Your task to perform on an android device: Open Yahoo.com Image 0: 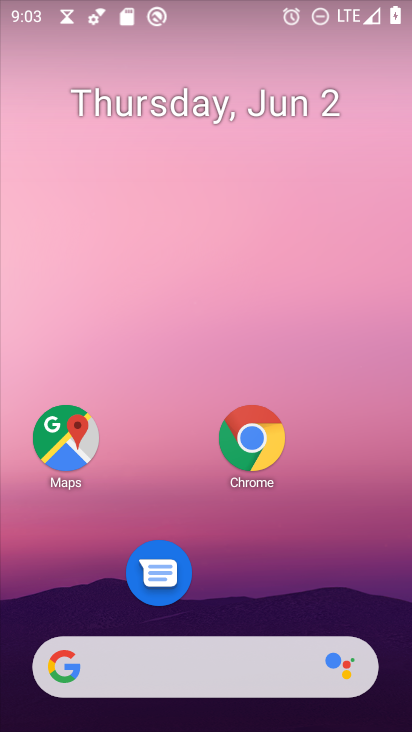
Step 0: press home button
Your task to perform on an android device: Open Yahoo.com Image 1: 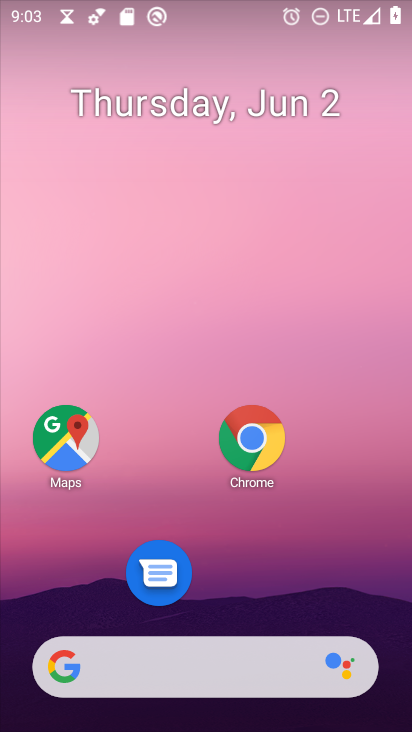
Step 1: click (250, 447)
Your task to perform on an android device: Open Yahoo.com Image 2: 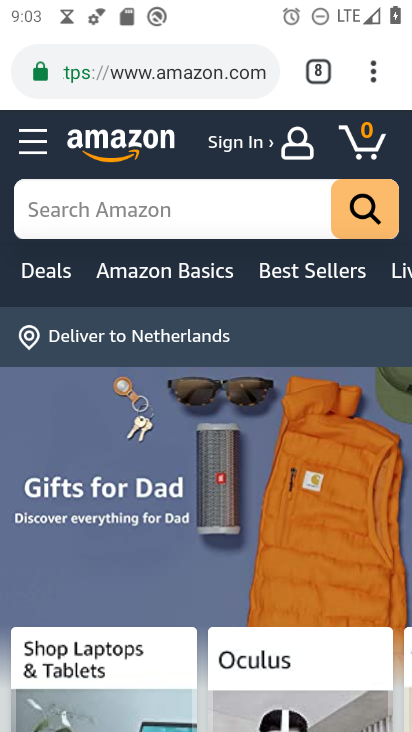
Step 2: drag from (374, 78) to (205, 143)
Your task to perform on an android device: Open Yahoo.com Image 3: 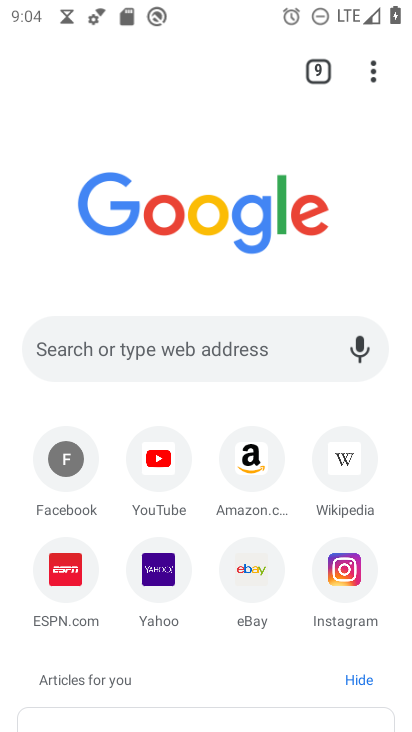
Step 3: click (160, 577)
Your task to perform on an android device: Open Yahoo.com Image 4: 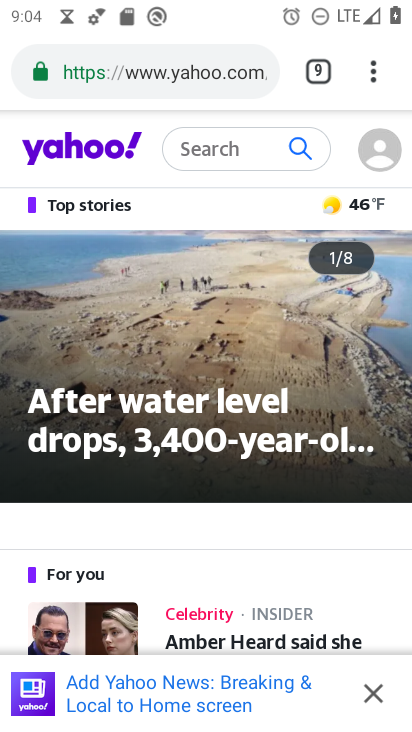
Step 4: task complete